Your task to perform on an android device: Go to Google maps Image 0: 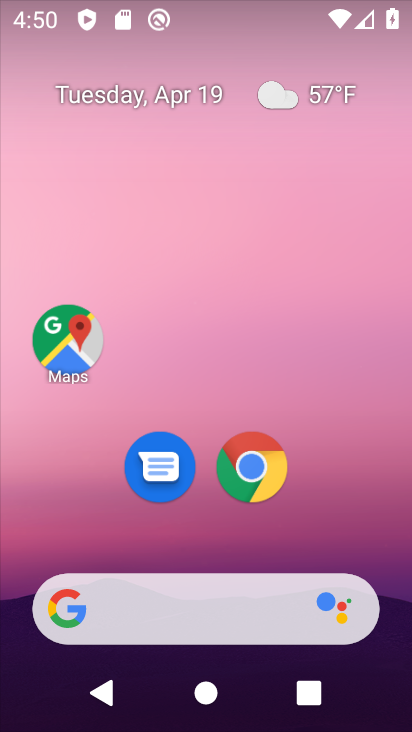
Step 0: drag from (239, 465) to (216, 188)
Your task to perform on an android device: Go to Google maps Image 1: 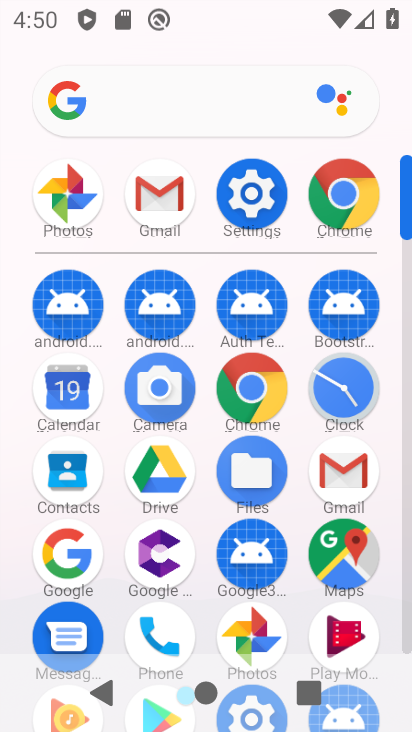
Step 1: click (407, 388)
Your task to perform on an android device: Go to Google maps Image 2: 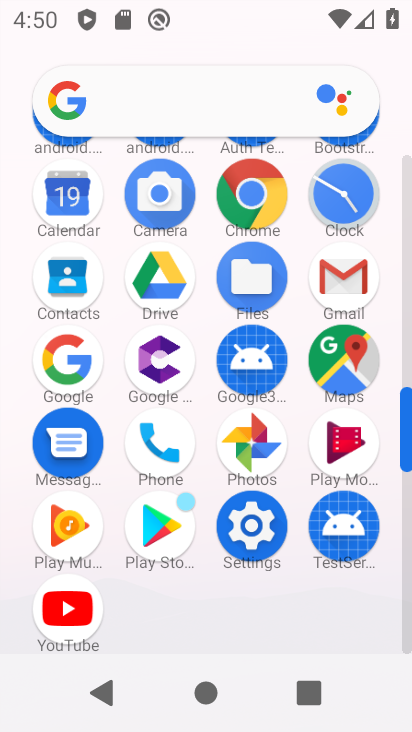
Step 2: click (352, 369)
Your task to perform on an android device: Go to Google maps Image 3: 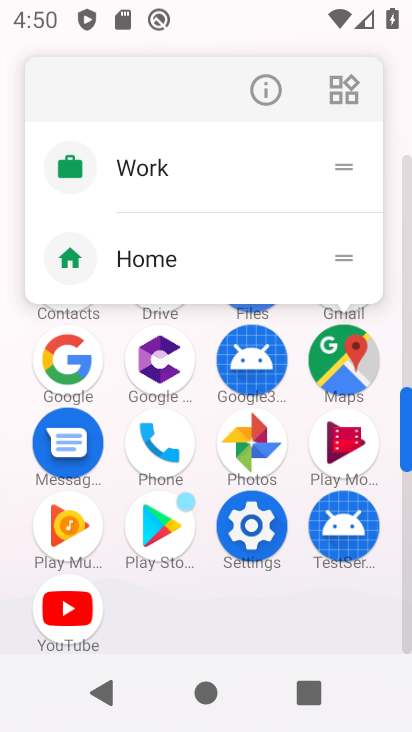
Step 3: click (344, 380)
Your task to perform on an android device: Go to Google maps Image 4: 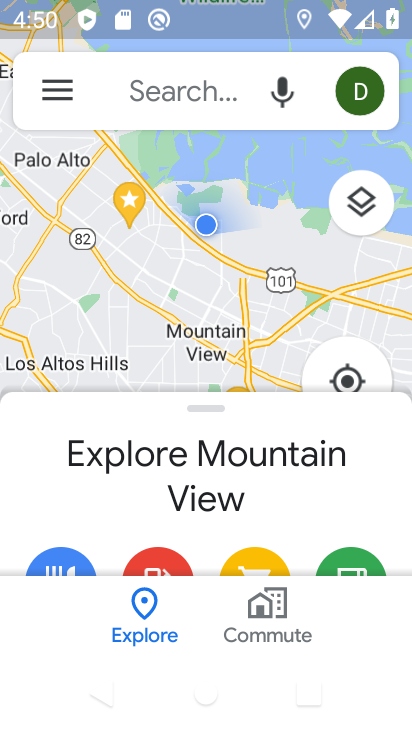
Step 4: task complete